Your task to perform on an android device: choose inbox layout in the gmail app Image 0: 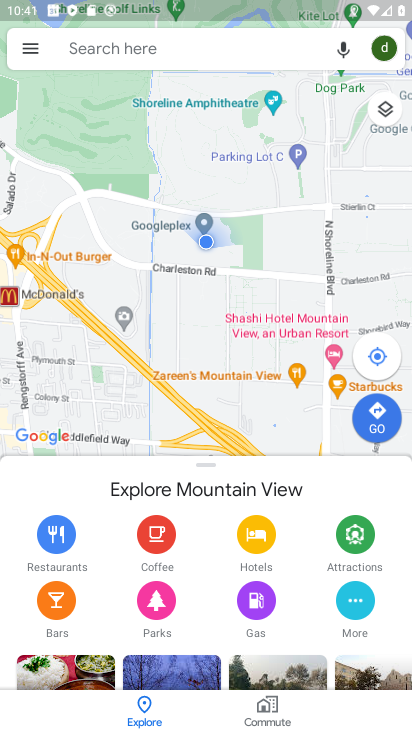
Step 0: press home button
Your task to perform on an android device: choose inbox layout in the gmail app Image 1: 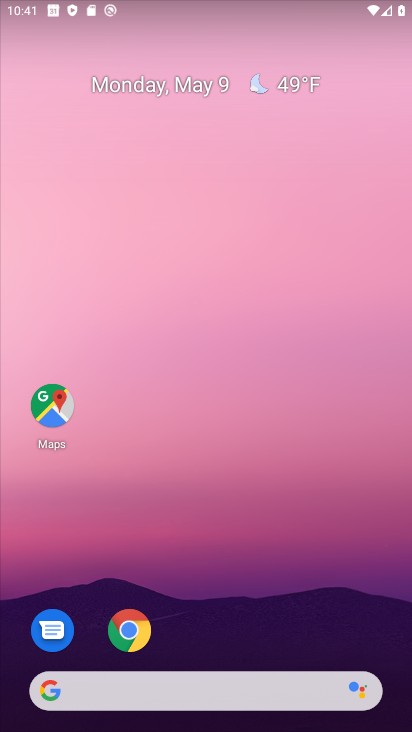
Step 1: drag from (222, 623) to (300, 182)
Your task to perform on an android device: choose inbox layout in the gmail app Image 2: 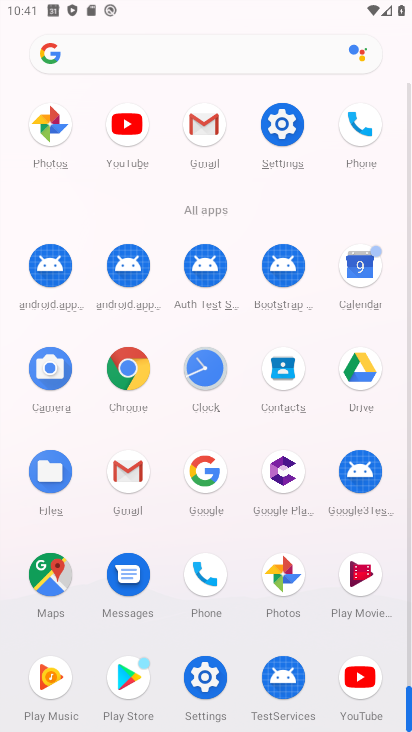
Step 2: click (124, 467)
Your task to perform on an android device: choose inbox layout in the gmail app Image 3: 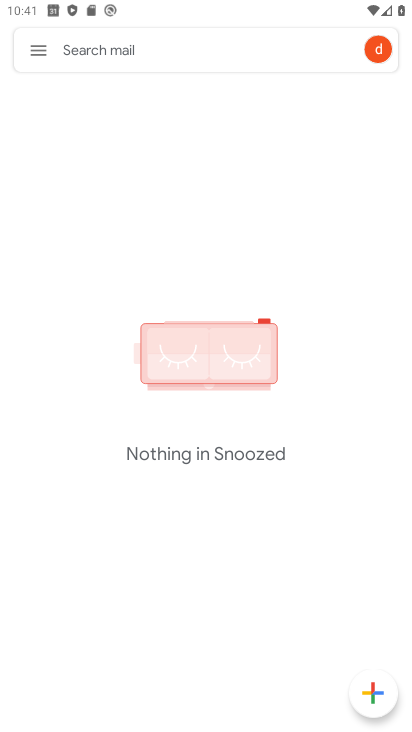
Step 3: click (34, 39)
Your task to perform on an android device: choose inbox layout in the gmail app Image 4: 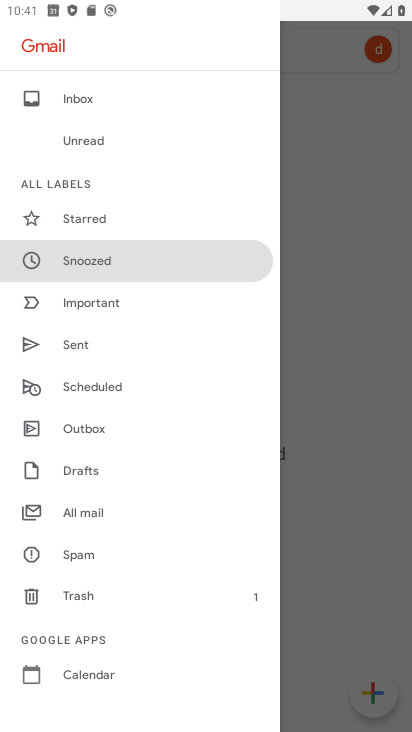
Step 4: drag from (118, 659) to (162, 409)
Your task to perform on an android device: choose inbox layout in the gmail app Image 5: 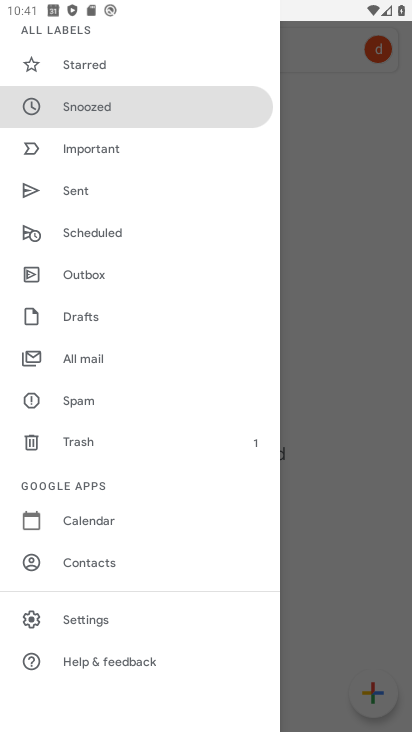
Step 5: click (114, 614)
Your task to perform on an android device: choose inbox layout in the gmail app Image 6: 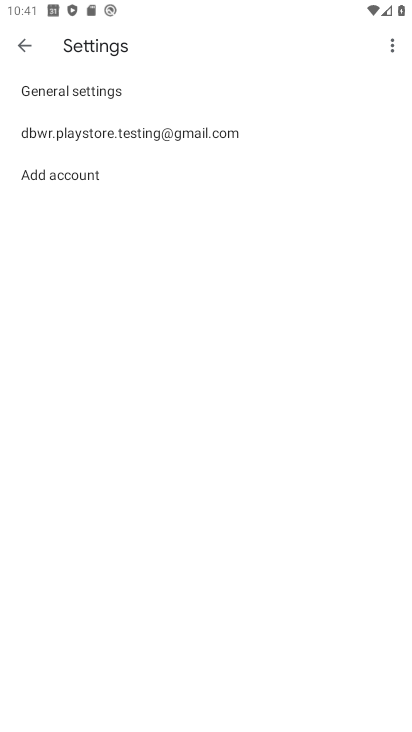
Step 6: click (194, 141)
Your task to perform on an android device: choose inbox layout in the gmail app Image 7: 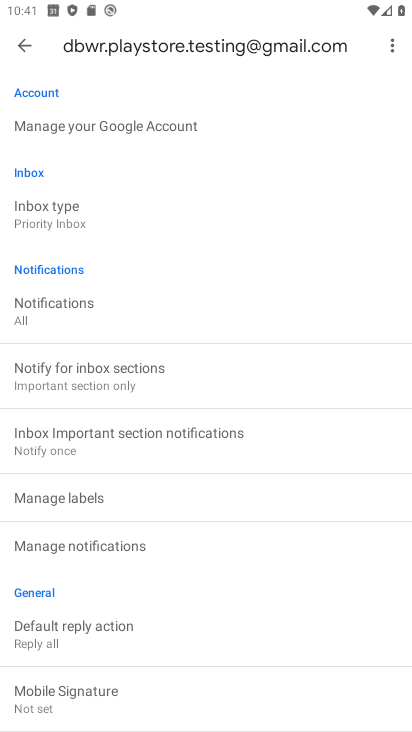
Step 7: click (117, 219)
Your task to perform on an android device: choose inbox layout in the gmail app Image 8: 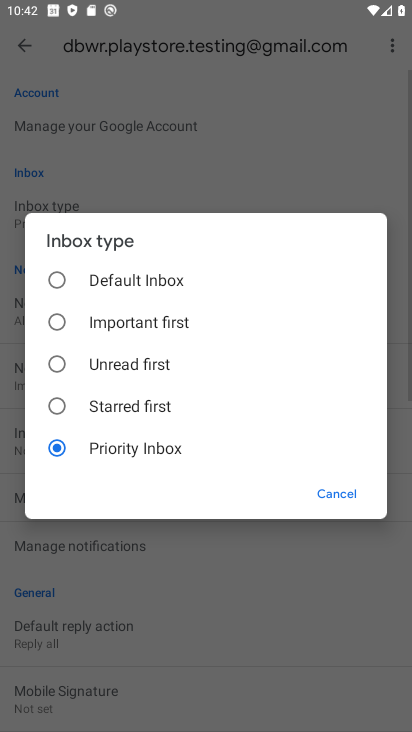
Step 8: click (118, 283)
Your task to perform on an android device: choose inbox layout in the gmail app Image 9: 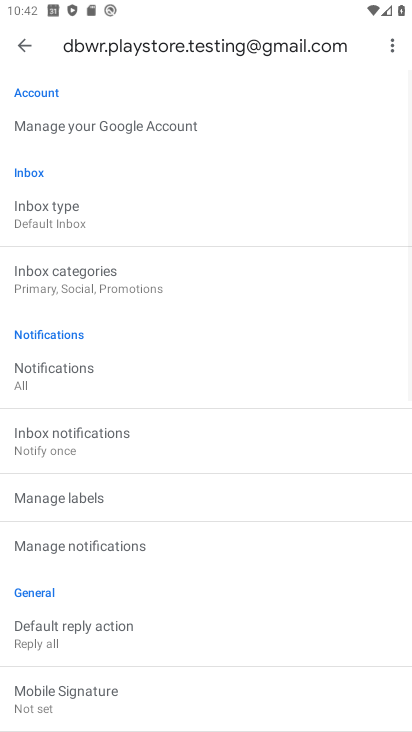
Step 9: task complete